Your task to perform on an android device: Go to ESPN.com Image 0: 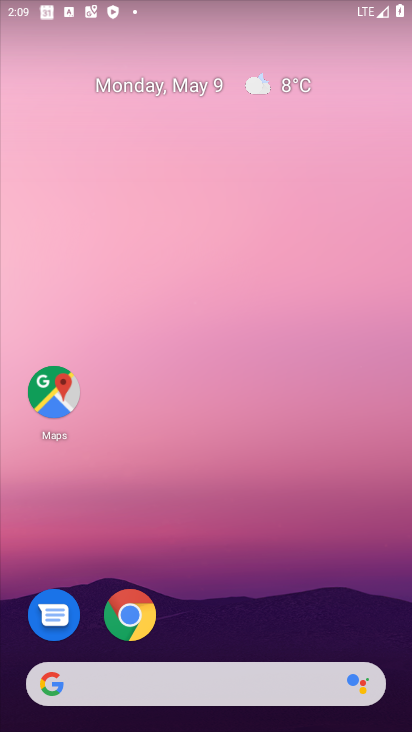
Step 0: click (125, 616)
Your task to perform on an android device: Go to ESPN.com Image 1: 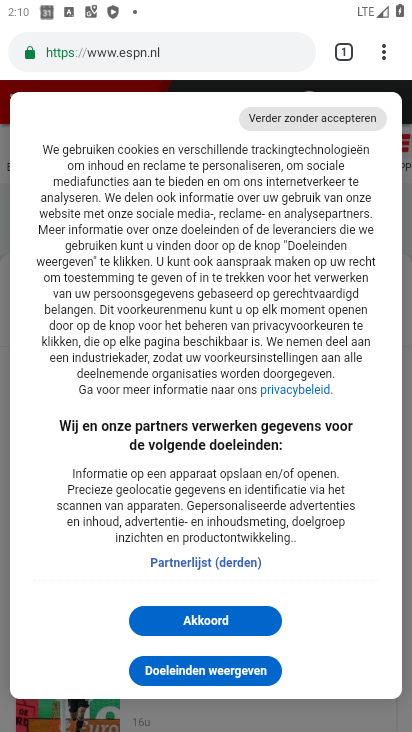
Step 1: task complete